Your task to perform on an android device: Open battery settings Image 0: 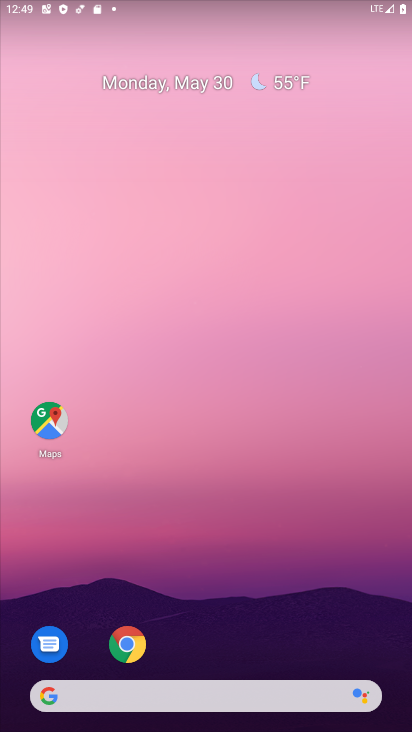
Step 0: drag from (274, 643) to (288, 170)
Your task to perform on an android device: Open battery settings Image 1: 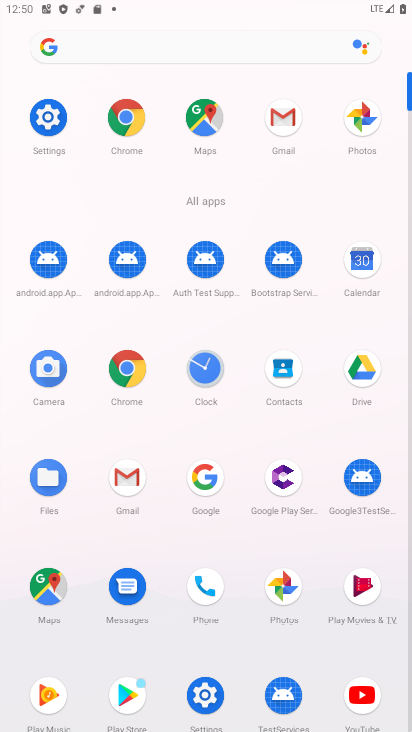
Step 1: click (60, 160)
Your task to perform on an android device: Open battery settings Image 2: 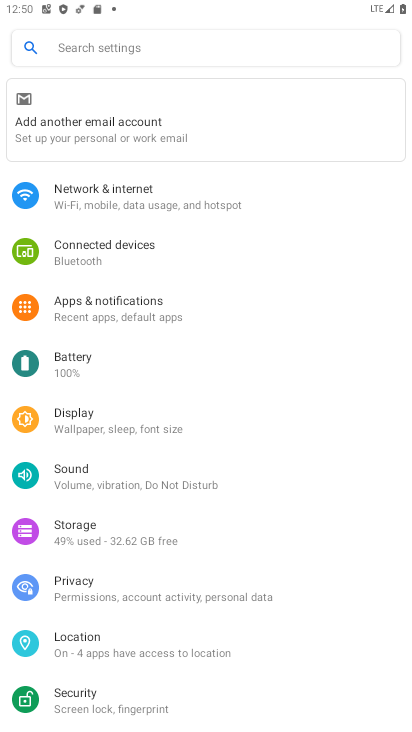
Step 2: click (118, 351)
Your task to perform on an android device: Open battery settings Image 3: 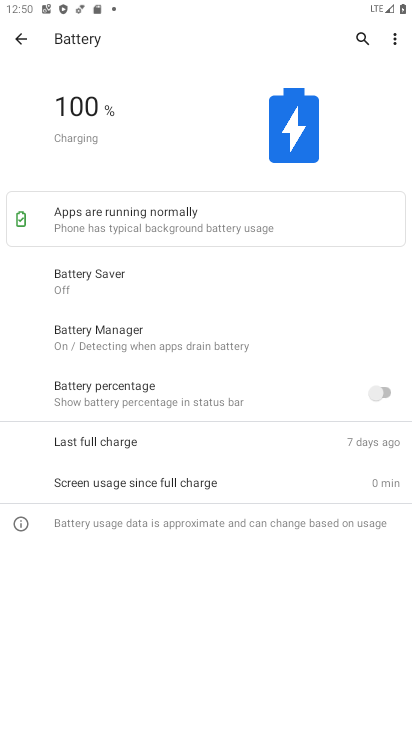
Step 3: task complete